Your task to perform on an android device: empty trash in google photos Image 0: 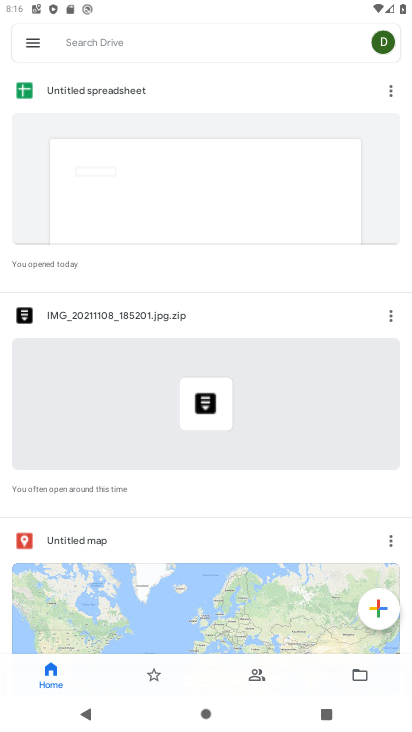
Step 0: press home button
Your task to perform on an android device: empty trash in google photos Image 1: 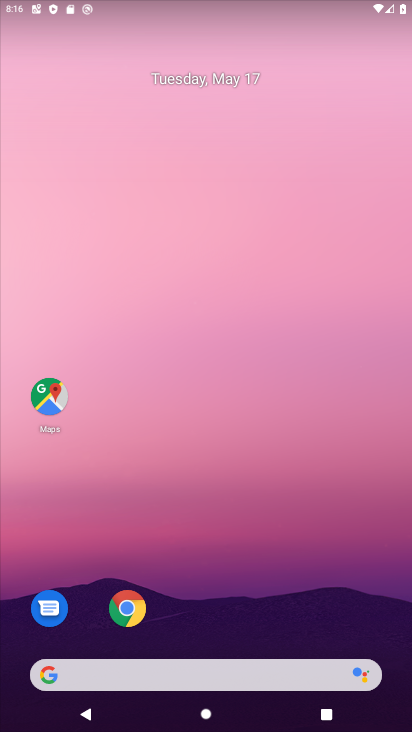
Step 1: drag from (302, 599) to (261, 71)
Your task to perform on an android device: empty trash in google photos Image 2: 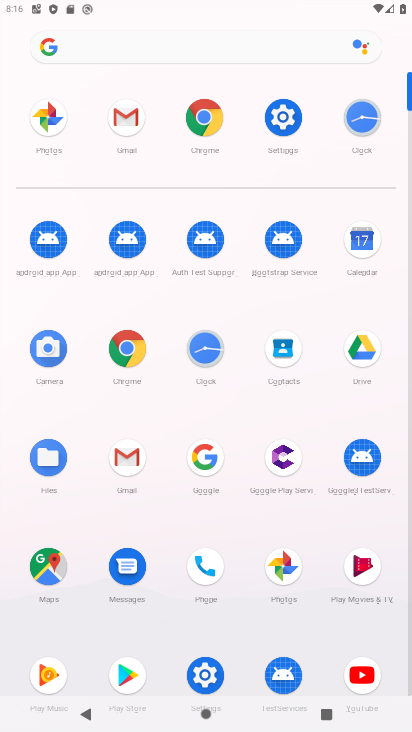
Step 2: click (51, 119)
Your task to perform on an android device: empty trash in google photos Image 3: 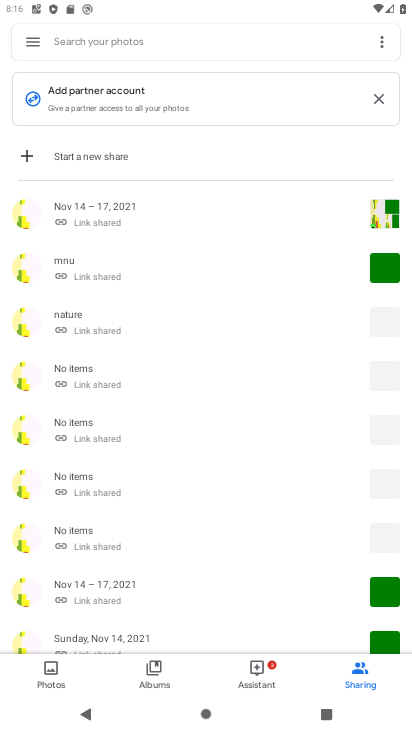
Step 3: click (53, 662)
Your task to perform on an android device: empty trash in google photos Image 4: 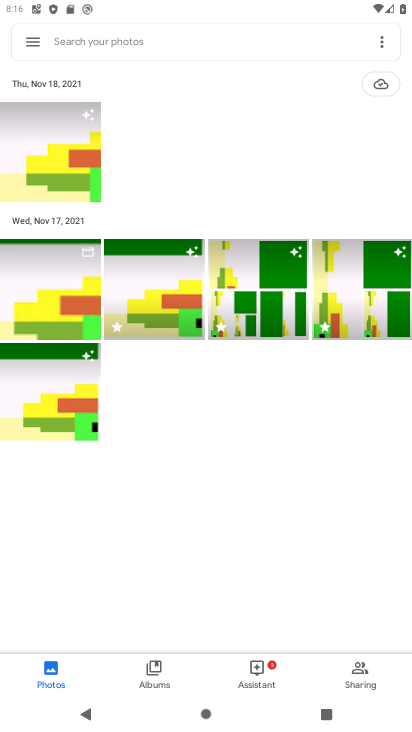
Step 4: click (42, 41)
Your task to perform on an android device: empty trash in google photos Image 5: 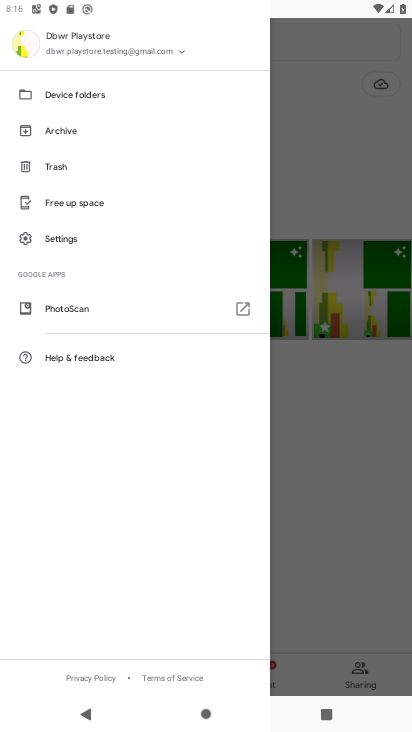
Step 5: click (81, 176)
Your task to perform on an android device: empty trash in google photos Image 6: 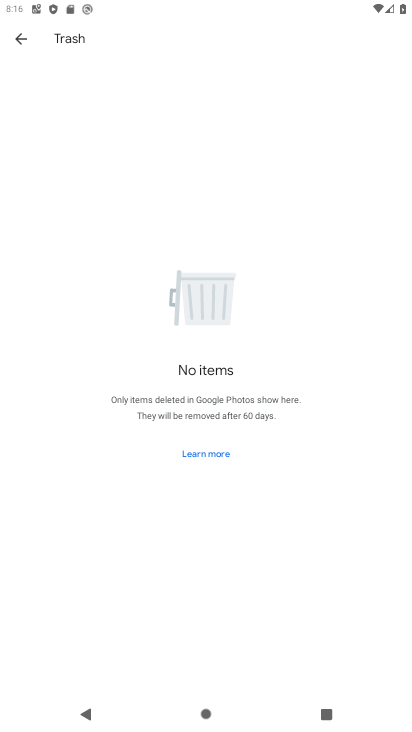
Step 6: task complete